Your task to perform on an android device: check out phone information Image 0: 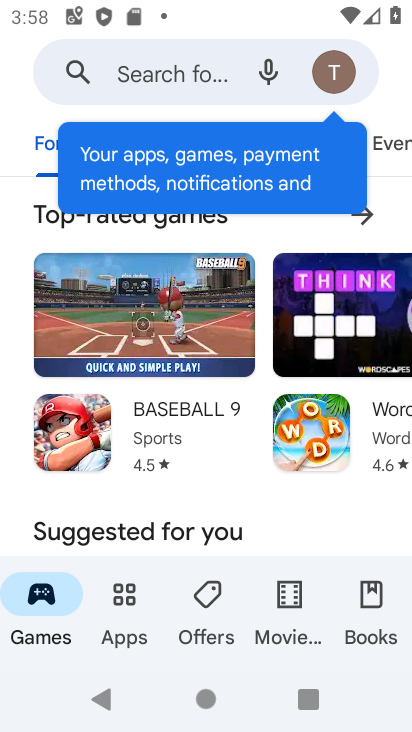
Step 0: press home button
Your task to perform on an android device: check out phone information Image 1: 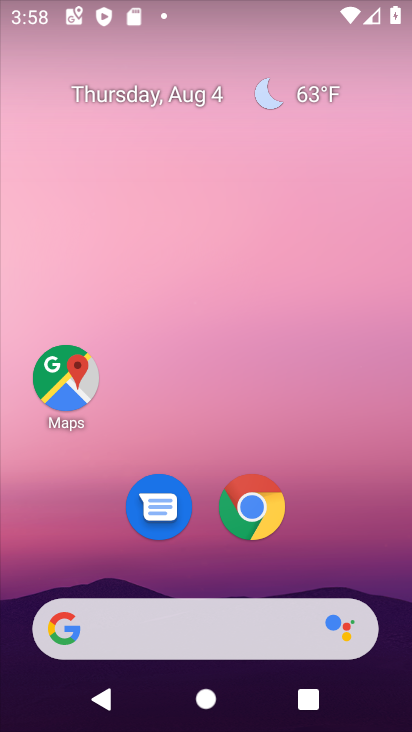
Step 1: drag from (76, 621) to (114, 725)
Your task to perform on an android device: check out phone information Image 2: 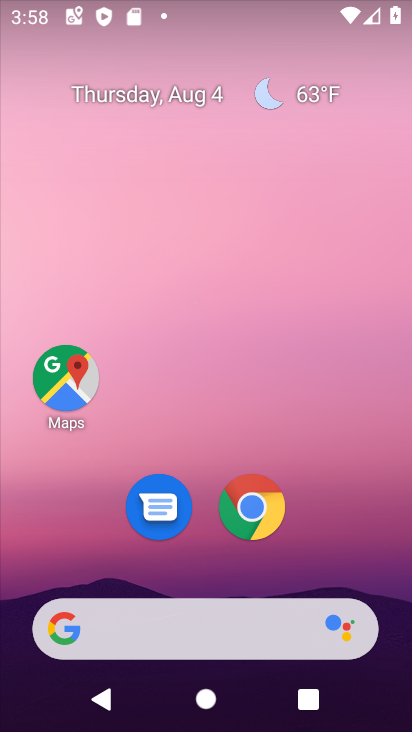
Step 2: drag from (51, 685) to (247, 26)
Your task to perform on an android device: check out phone information Image 3: 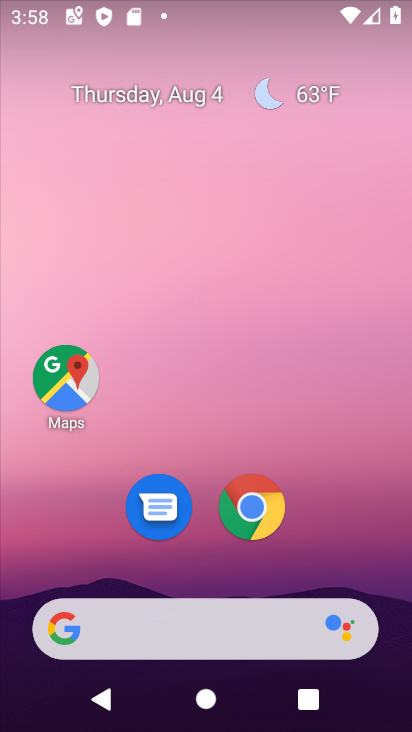
Step 3: drag from (33, 674) to (356, 1)
Your task to perform on an android device: check out phone information Image 4: 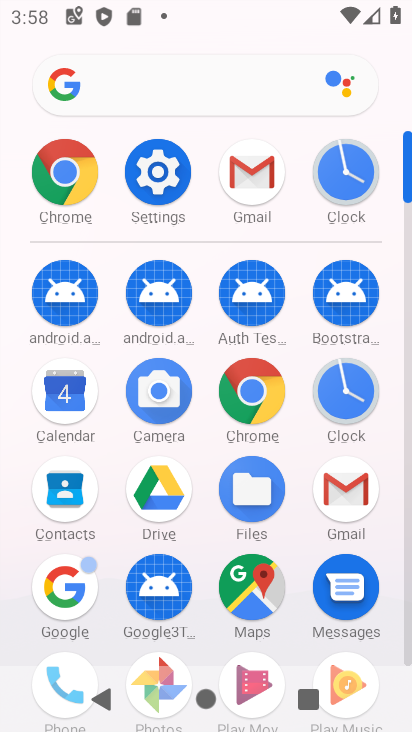
Step 4: click (67, 660)
Your task to perform on an android device: check out phone information Image 5: 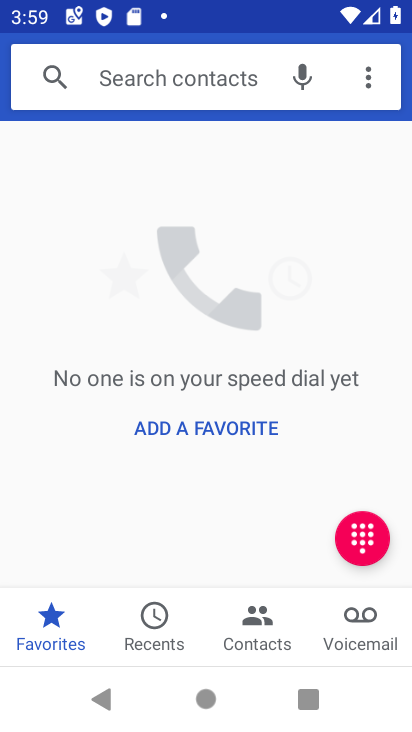
Step 5: click (232, 617)
Your task to perform on an android device: check out phone information Image 6: 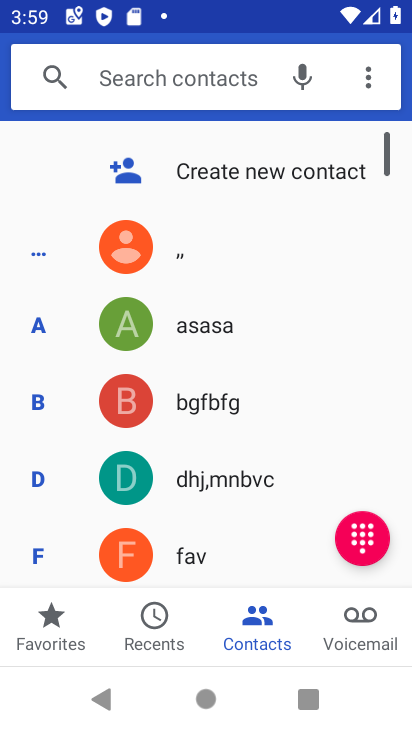
Step 6: task complete